Your task to perform on an android device: turn on airplane mode Image 0: 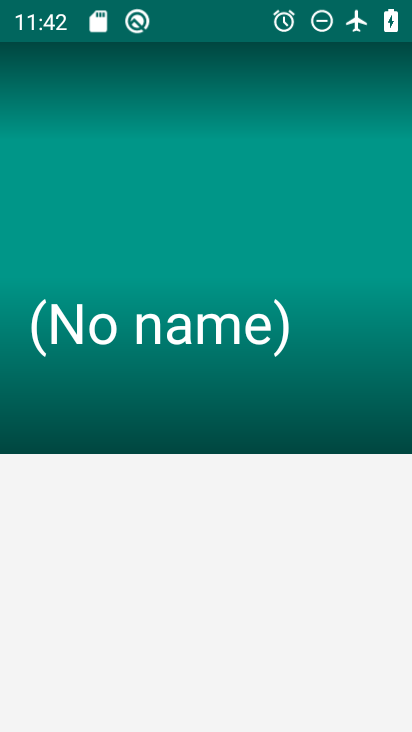
Step 0: drag from (334, 525) to (311, 102)
Your task to perform on an android device: turn on airplane mode Image 1: 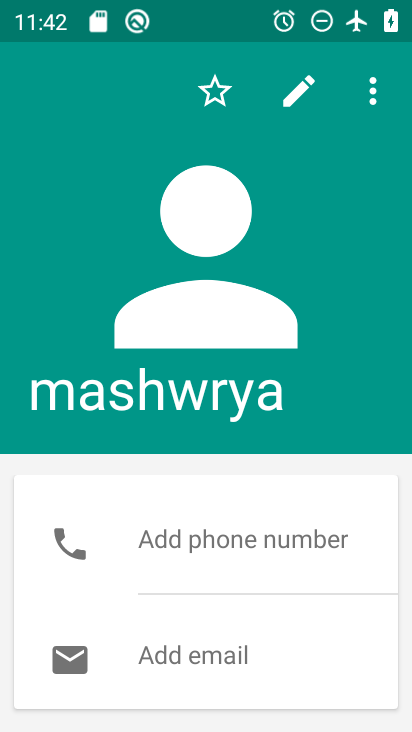
Step 1: press home button
Your task to perform on an android device: turn on airplane mode Image 2: 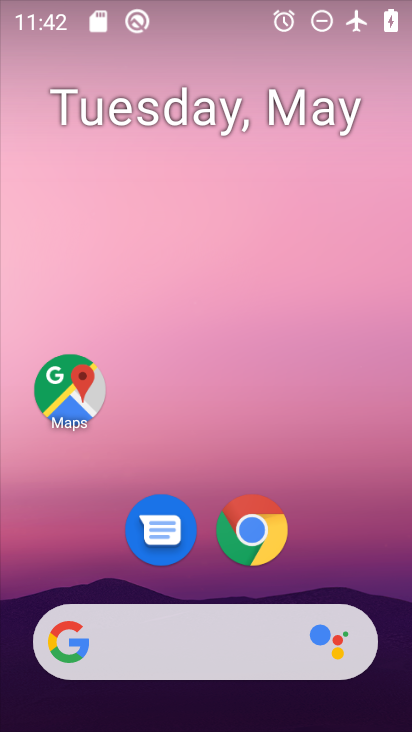
Step 2: drag from (325, 202) to (322, 5)
Your task to perform on an android device: turn on airplane mode Image 3: 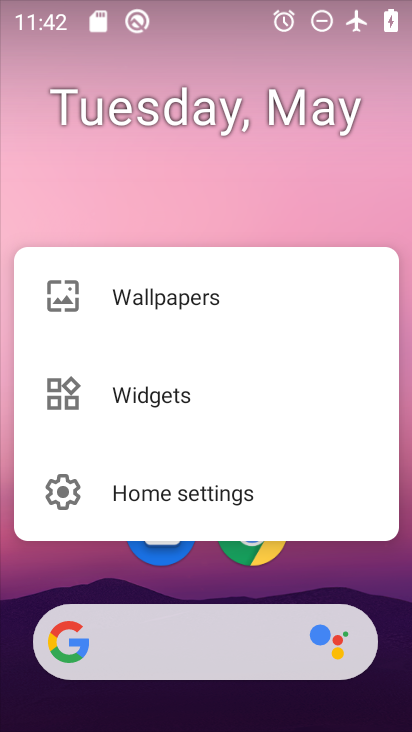
Step 3: click (351, 569)
Your task to perform on an android device: turn on airplane mode Image 4: 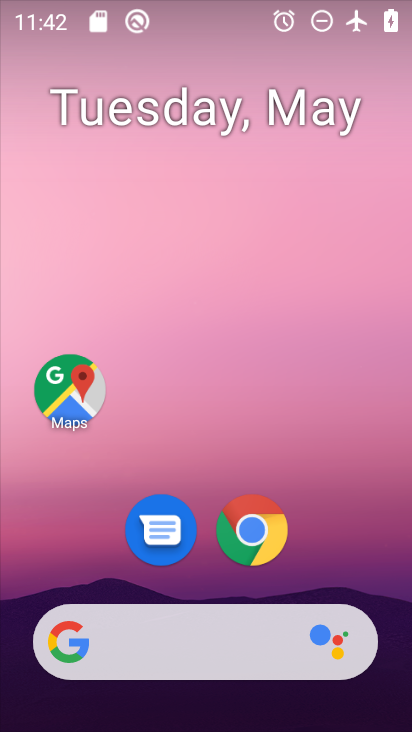
Step 4: drag from (344, 547) to (295, 146)
Your task to perform on an android device: turn on airplane mode Image 5: 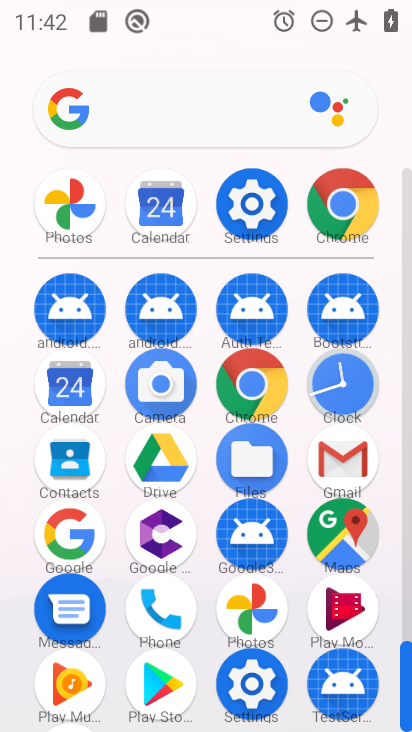
Step 5: click (250, 213)
Your task to perform on an android device: turn on airplane mode Image 6: 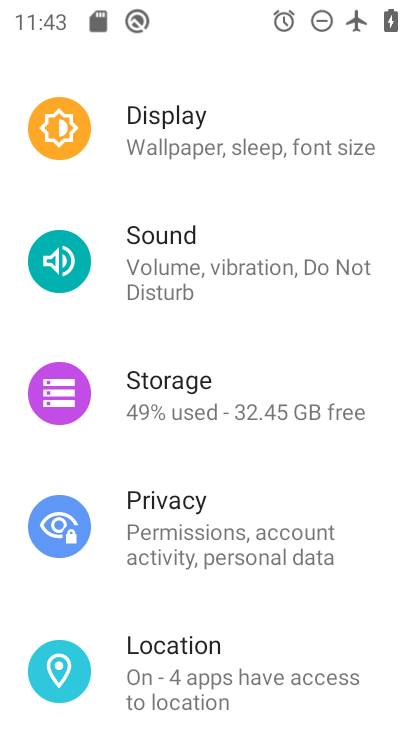
Step 6: drag from (219, 240) to (234, 696)
Your task to perform on an android device: turn on airplane mode Image 7: 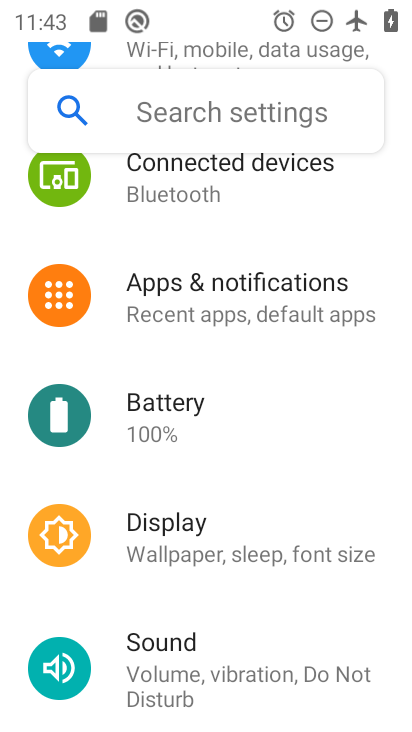
Step 7: drag from (265, 233) to (286, 668)
Your task to perform on an android device: turn on airplane mode Image 8: 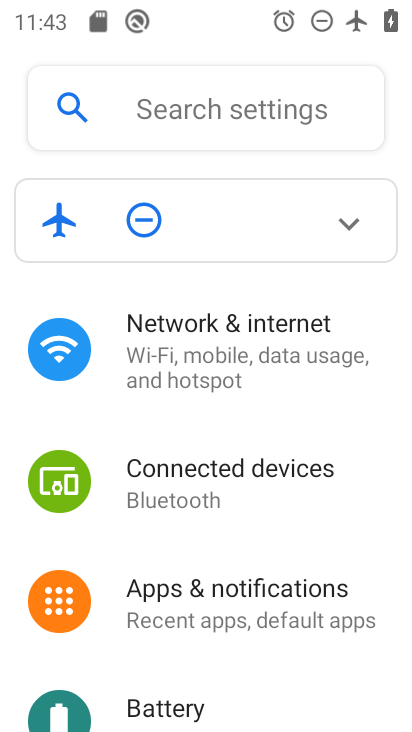
Step 8: click (235, 388)
Your task to perform on an android device: turn on airplane mode Image 9: 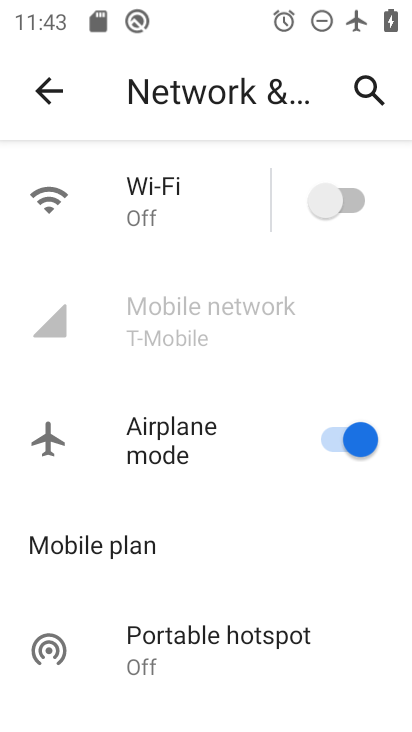
Step 9: task complete